Your task to perform on an android device: Open Android settings Image 0: 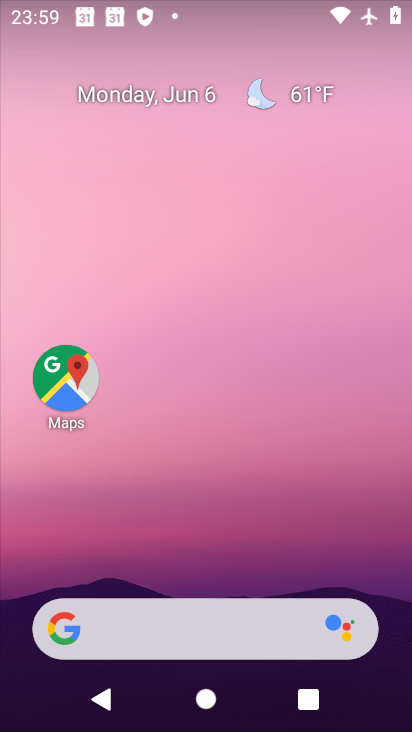
Step 0: drag from (217, 546) to (231, 64)
Your task to perform on an android device: Open Android settings Image 1: 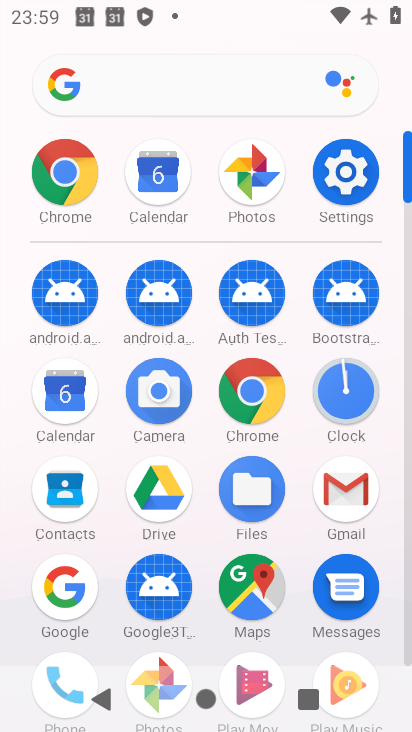
Step 1: click (349, 166)
Your task to perform on an android device: Open Android settings Image 2: 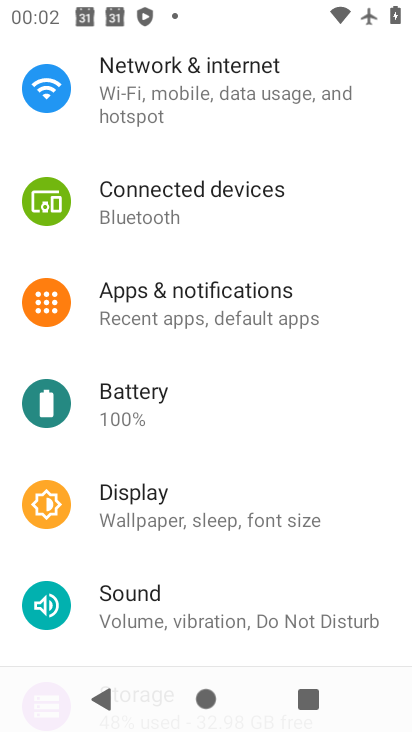
Step 2: task complete